Your task to perform on an android device: stop showing notifications on the lock screen Image 0: 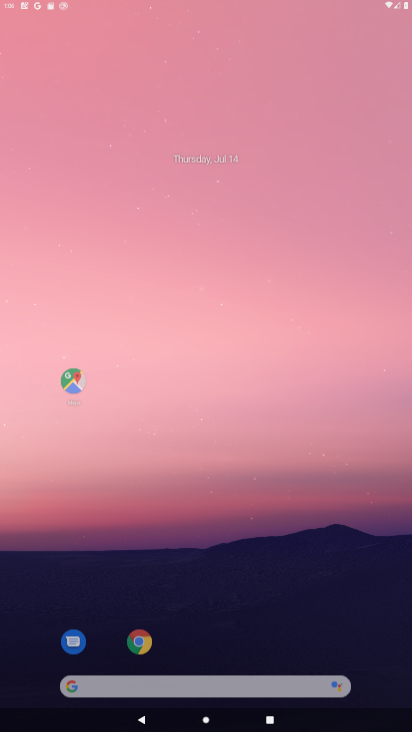
Step 0: press home button
Your task to perform on an android device: stop showing notifications on the lock screen Image 1: 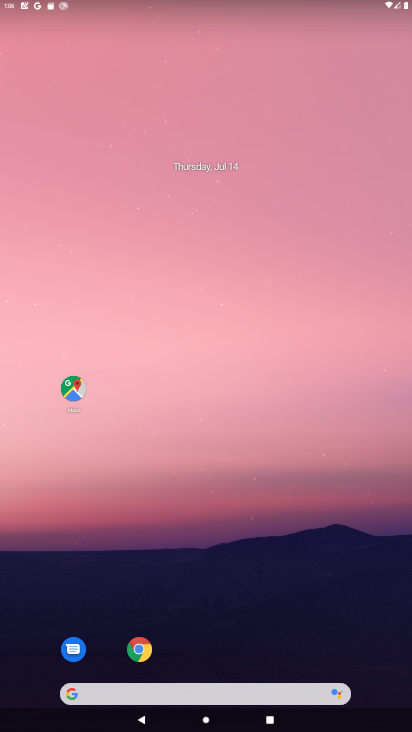
Step 1: drag from (335, 710) to (363, 32)
Your task to perform on an android device: stop showing notifications on the lock screen Image 2: 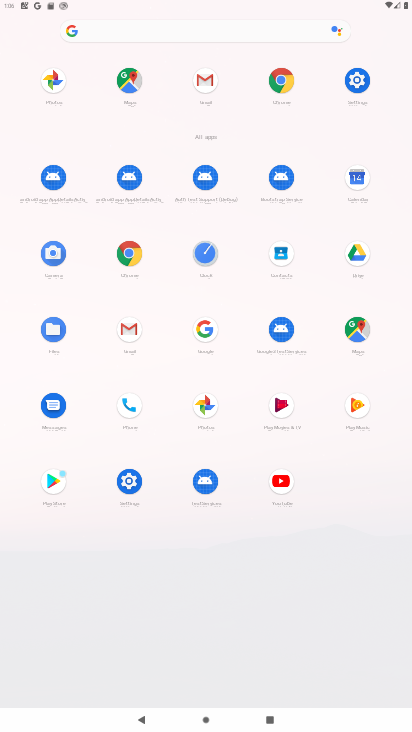
Step 2: click (353, 76)
Your task to perform on an android device: stop showing notifications on the lock screen Image 3: 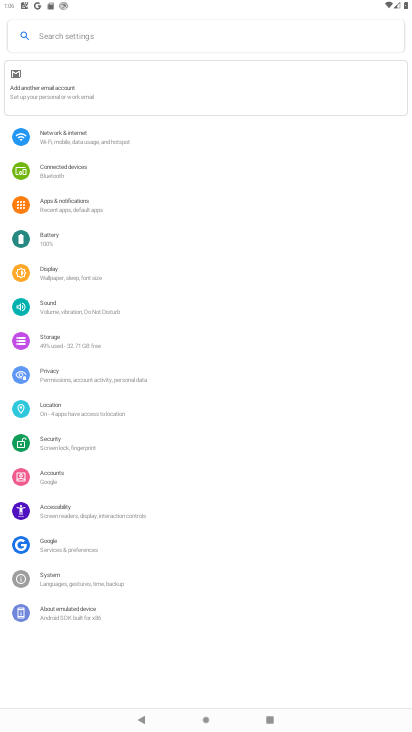
Step 3: click (97, 360)
Your task to perform on an android device: stop showing notifications on the lock screen Image 4: 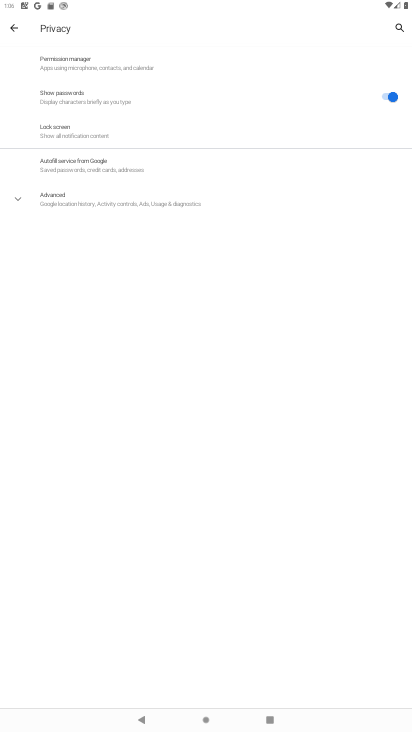
Step 4: press back button
Your task to perform on an android device: stop showing notifications on the lock screen Image 5: 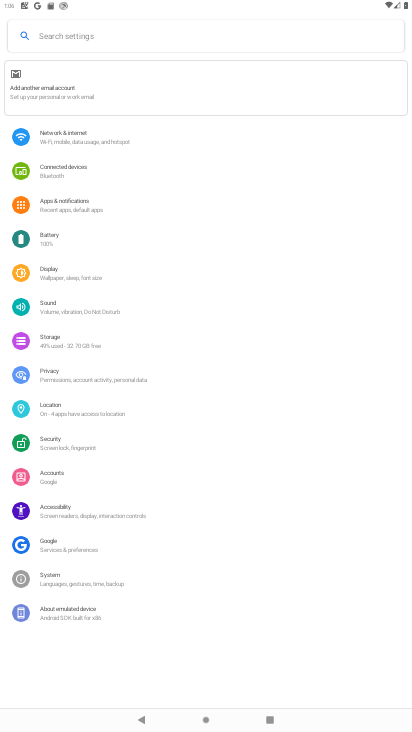
Step 5: click (73, 408)
Your task to perform on an android device: stop showing notifications on the lock screen Image 6: 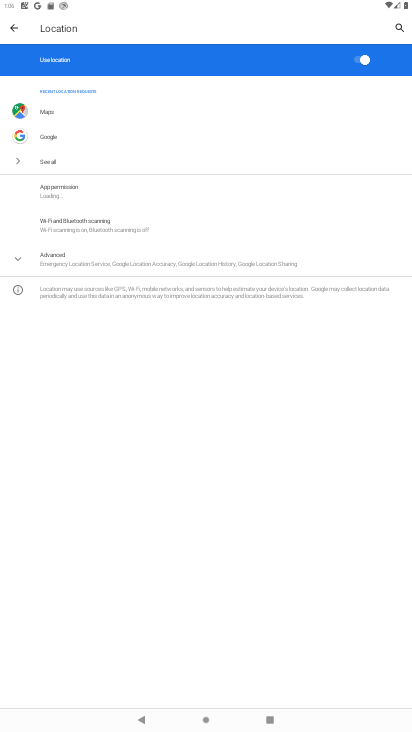
Step 6: task complete